Your task to perform on an android device: Toggle the flashlight Image 0: 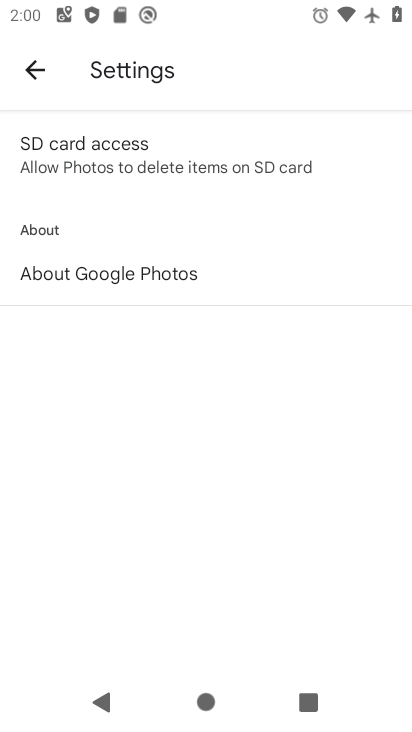
Step 0: press home button
Your task to perform on an android device: Toggle the flashlight Image 1: 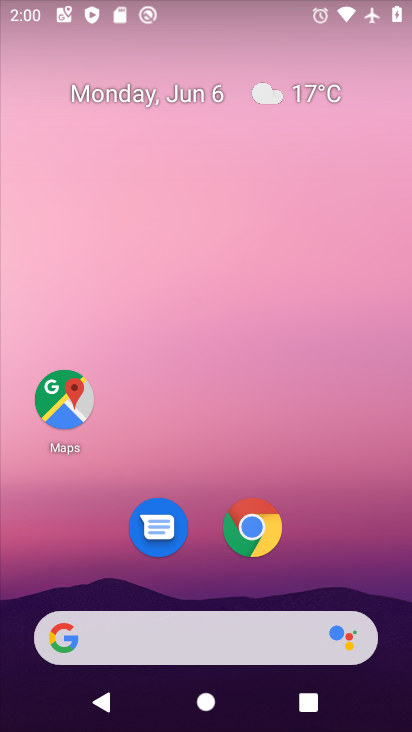
Step 1: task complete